Your task to perform on an android device: Is it going to rain today? Image 0: 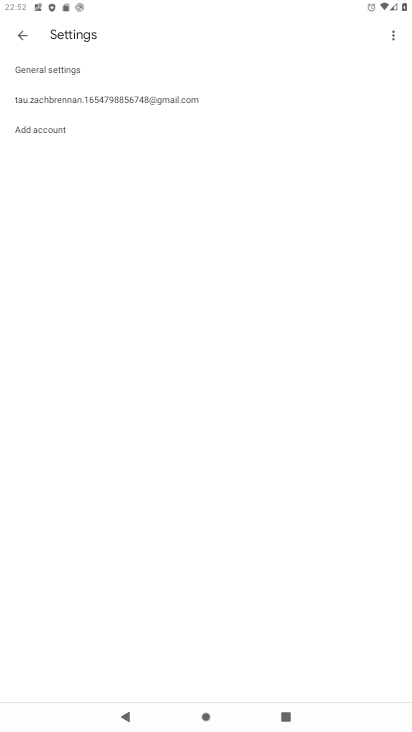
Step 0: drag from (231, 505) to (239, 436)
Your task to perform on an android device: Is it going to rain today? Image 1: 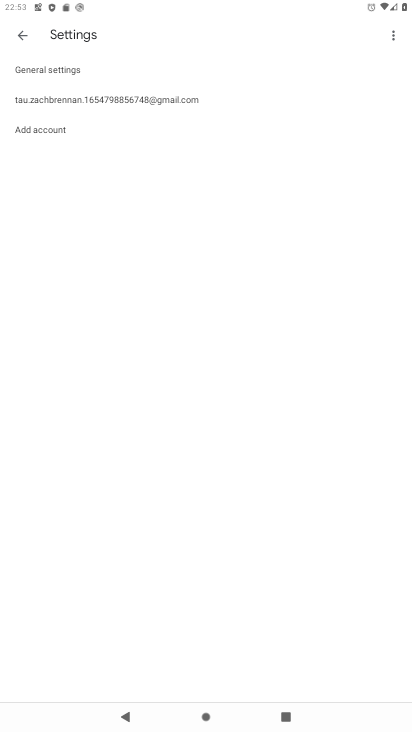
Step 1: drag from (175, 530) to (219, 366)
Your task to perform on an android device: Is it going to rain today? Image 2: 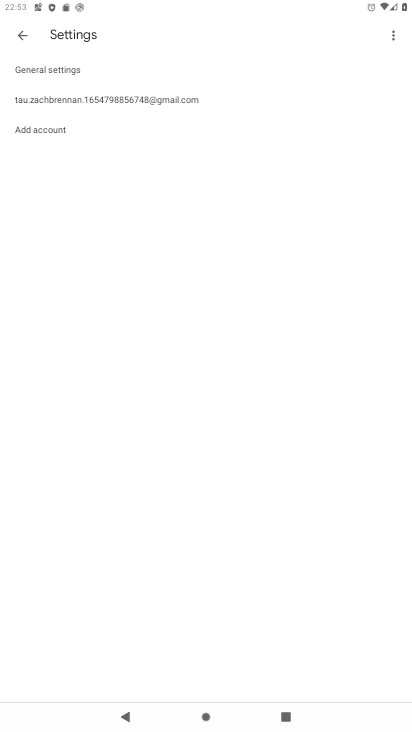
Step 2: press home button
Your task to perform on an android device: Is it going to rain today? Image 3: 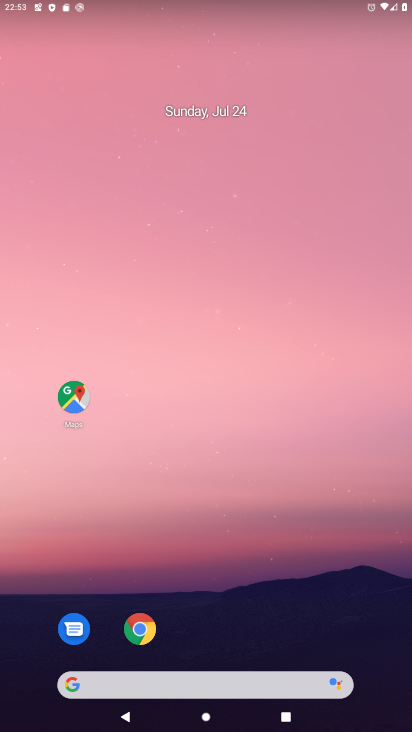
Step 3: drag from (187, 634) to (250, 306)
Your task to perform on an android device: Is it going to rain today? Image 4: 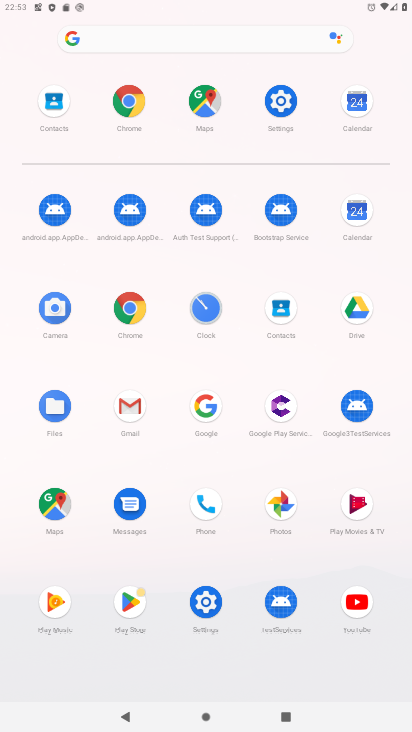
Step 4: click (186, 46)
Your task to perform on an android device: Is it going to rain today? Image 5: 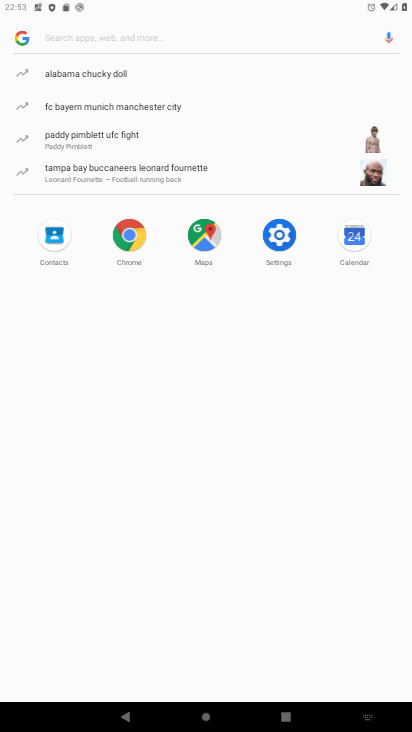
Step 5: type "Is it going to rain today?"
Your task to perform on an android device: Is it going to rain today? Image 6: 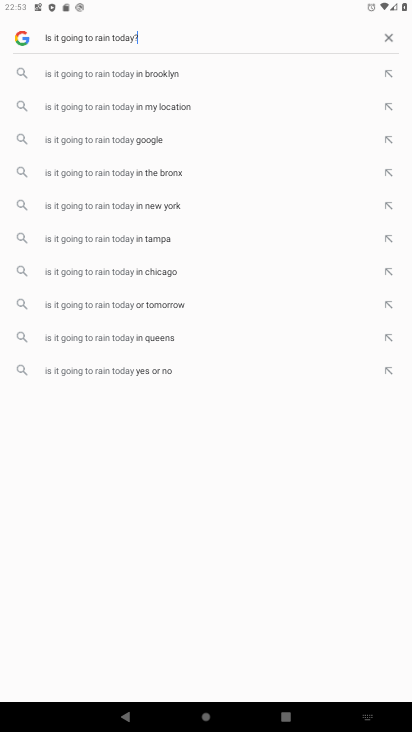
Step 6: type ""
Your task to perform on an android device: Is it going to rain today? Image 7: 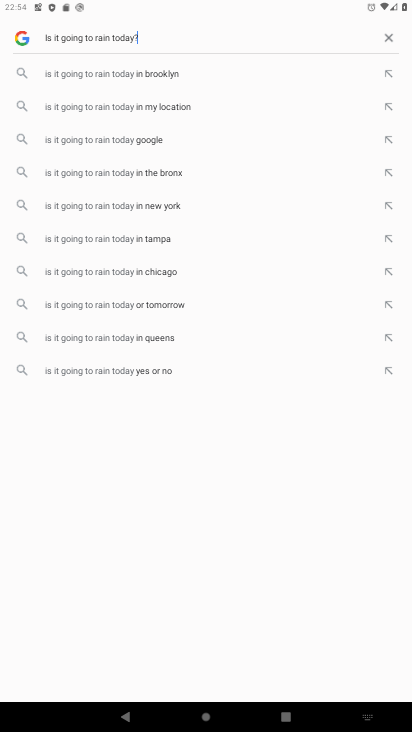
Step 7: click (140, 72)
Your task to perform on an android device: Is it going to rain today? Image 8: 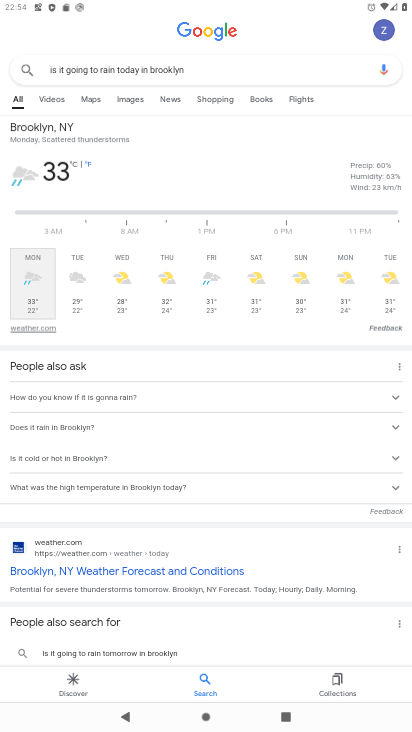
Step 8: task complete